Your task to perform on an android device: check android version Image 0: 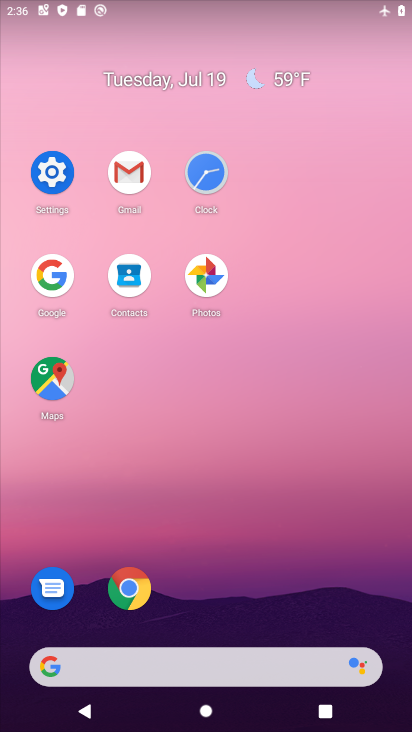
Step 0: click (65, 182)
Your task to perform on an android device: check android version Image 1: 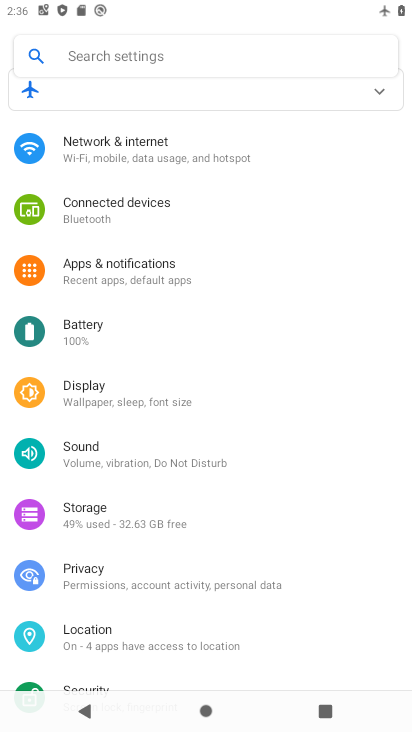
Step 1: drag from (232, 649) to (234, 243)
Your task to perform on an android device: check android version Image 2: 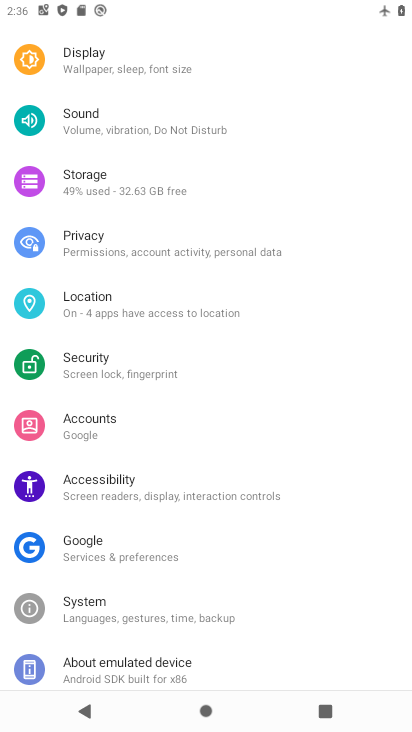
Step 2: click (182, 668)
Your task to perform on an android device: check android version Image 3: 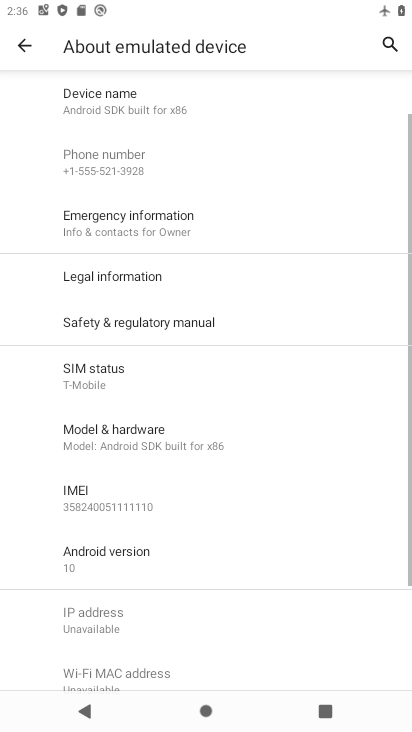
Step 3: click (132, 558)
Your task to perform on an android device: check android version Image 4: 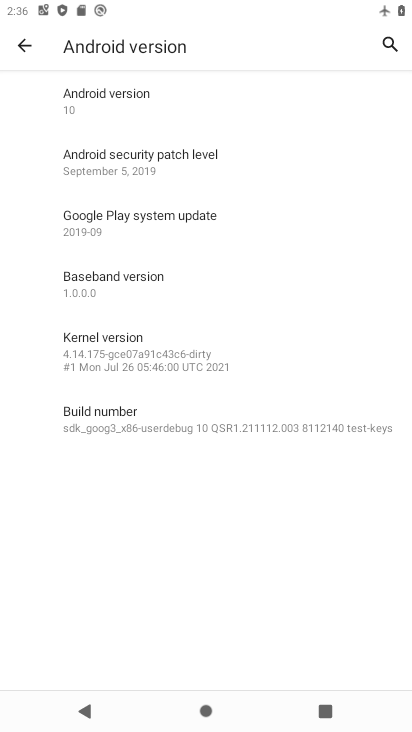
Step 4: click (173, 113)
Your task to perform on an android device: check android version Image 5: 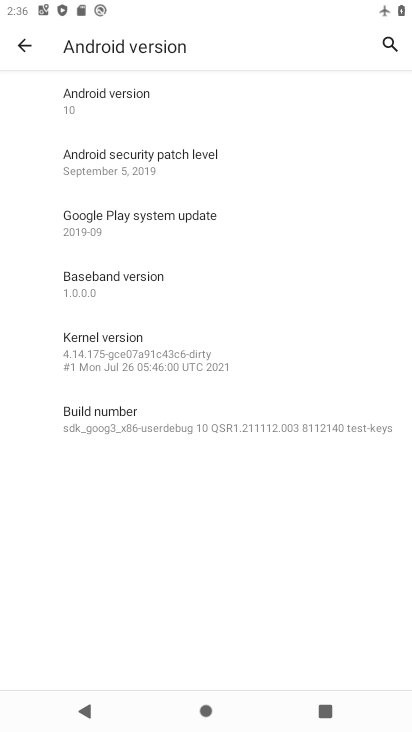
Step 5: task complete